Your task to perform on an android device: What's the weather going to be tomorrow? Image 0: 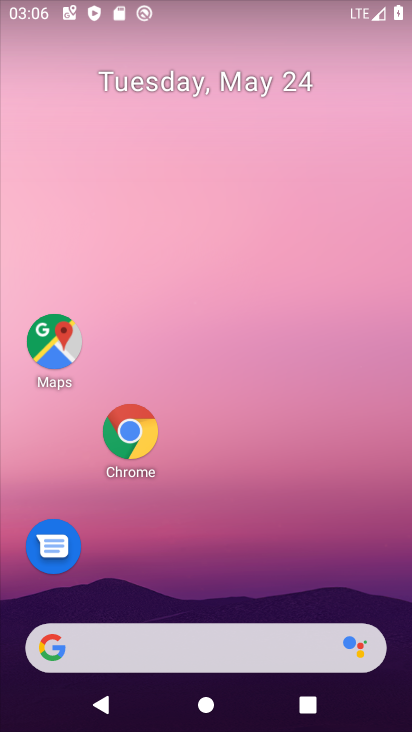
Step 0: drag from (267, 391) to (352, 89)
Your task to perform on an android device: What's the weather going to be tomorrow? Image 1: 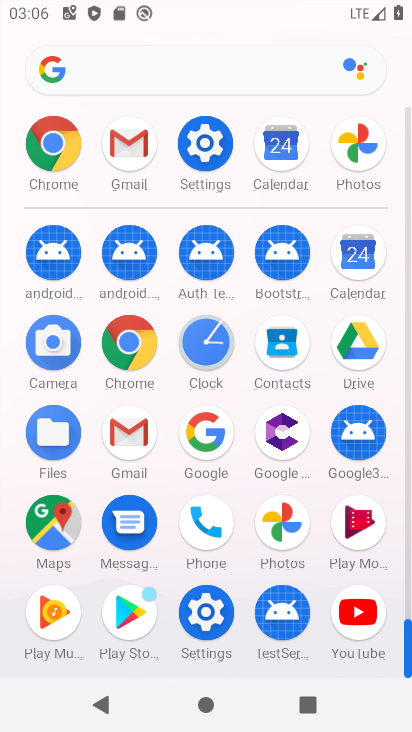
Step 1: click (207, 64)
Your task to perform on an android device: What's the weather going to be tomorrow? Image 2: 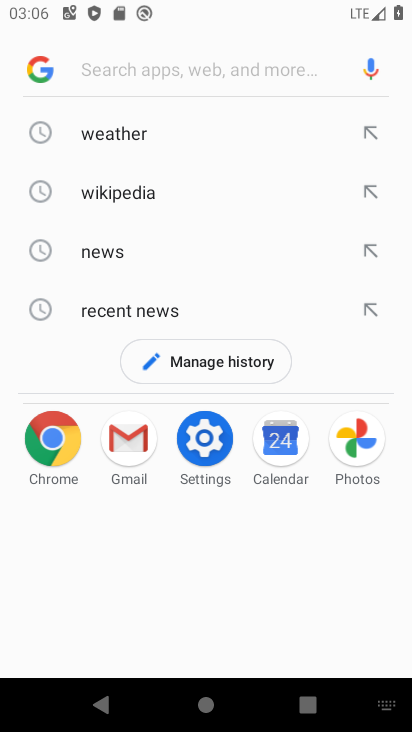
Step 2: type "What's the weather going to be tomorrow?"
Your task to perform on an android device: What's the weather going to be tomorrow? Image 3: 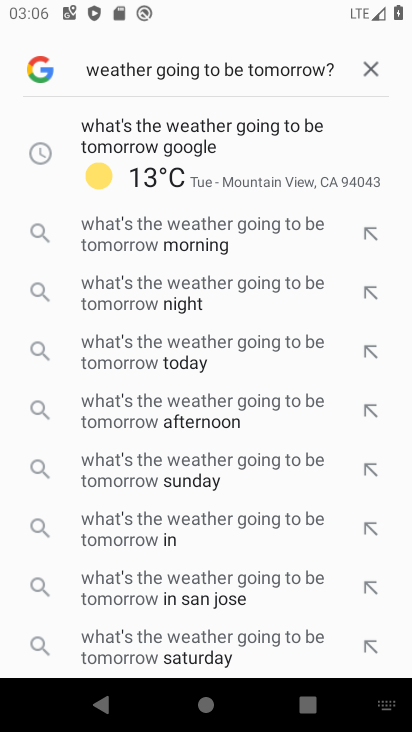
Step 3: click (77, 152)
Your task to perform on an android device: What's the weather going to be tomorrow? Image 4: 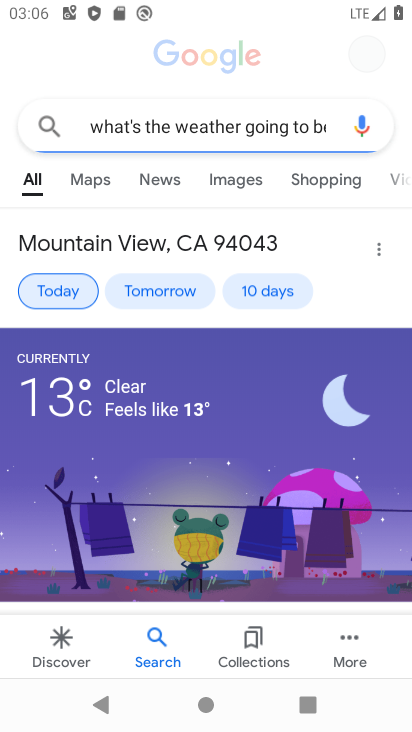
Step 4: task complete